Your task to perform on an android device: open device folders in google photos Image 0: 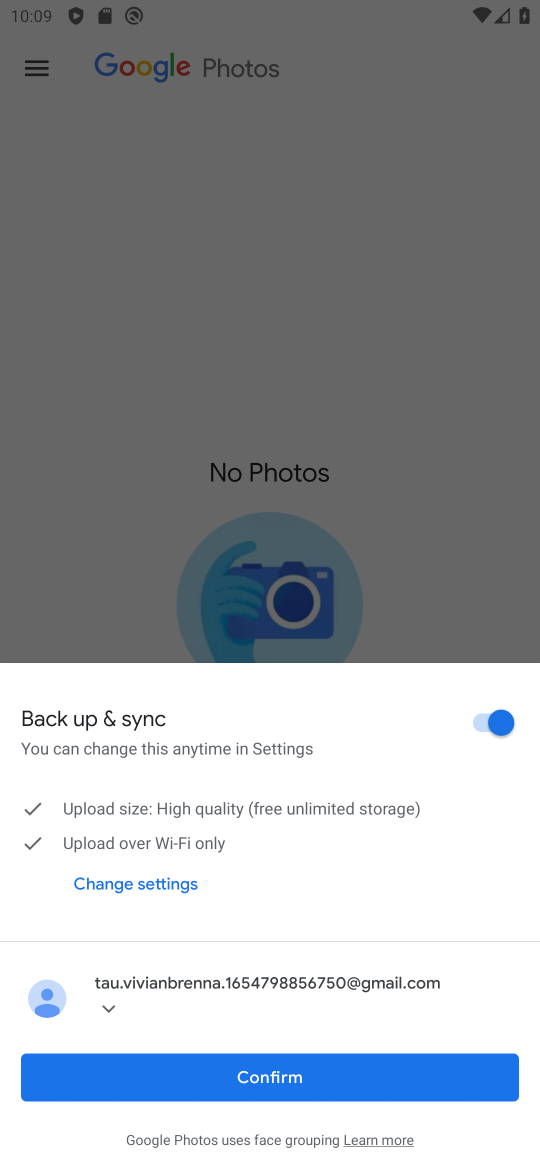
Step 0: press home button
Your task to perform on an android device: open device folders in google photos Image 1: 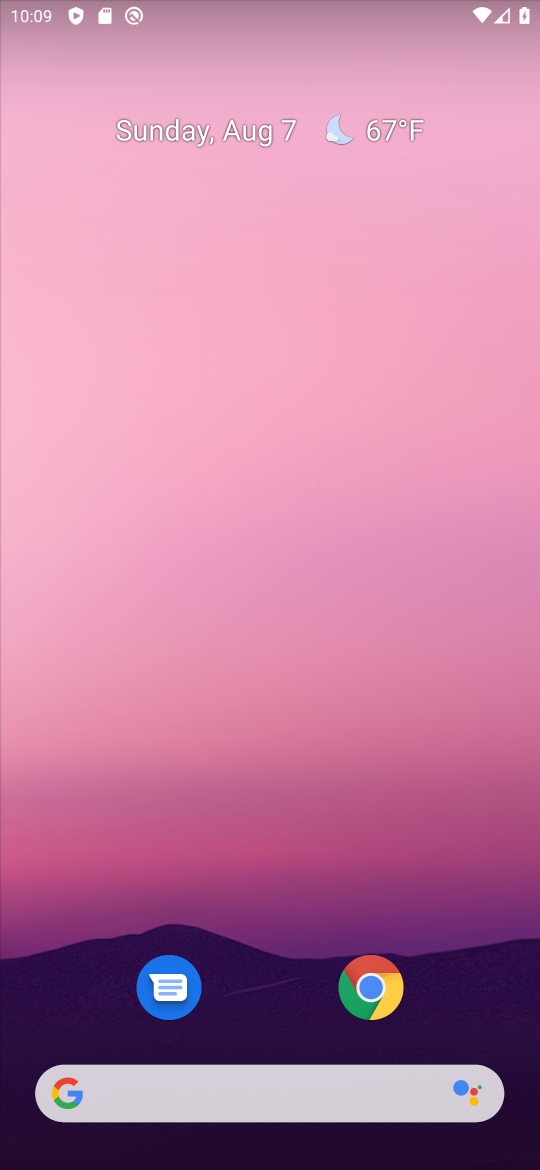
Step 1: drag from (181, 1022) to (310, 12)
Your task to perform on an android device: open device folders in google photos Image 2: 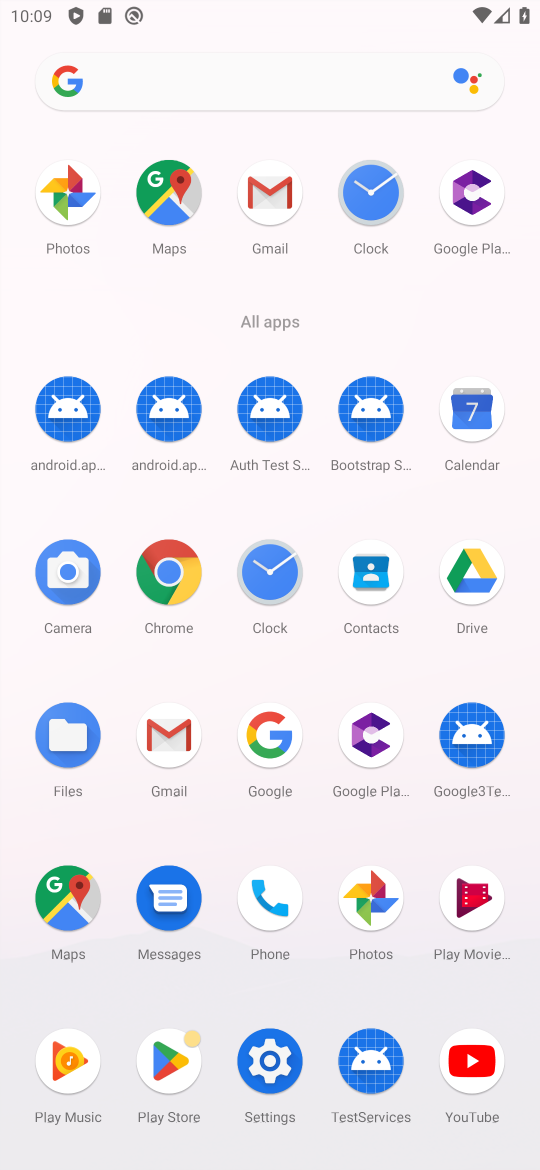
Step 2: click (360, 902)
Your task to perform on an android device: open device folders in google photos Image 3: 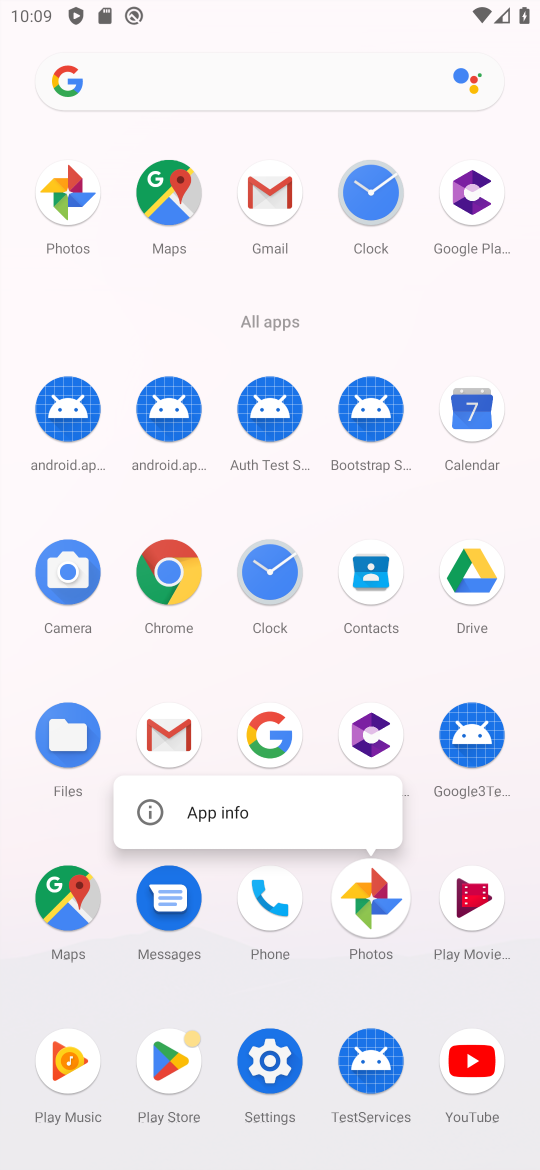
Step 3: click (360, 902)
Your task to perform on an android device: open device folders in google photos Image 4: 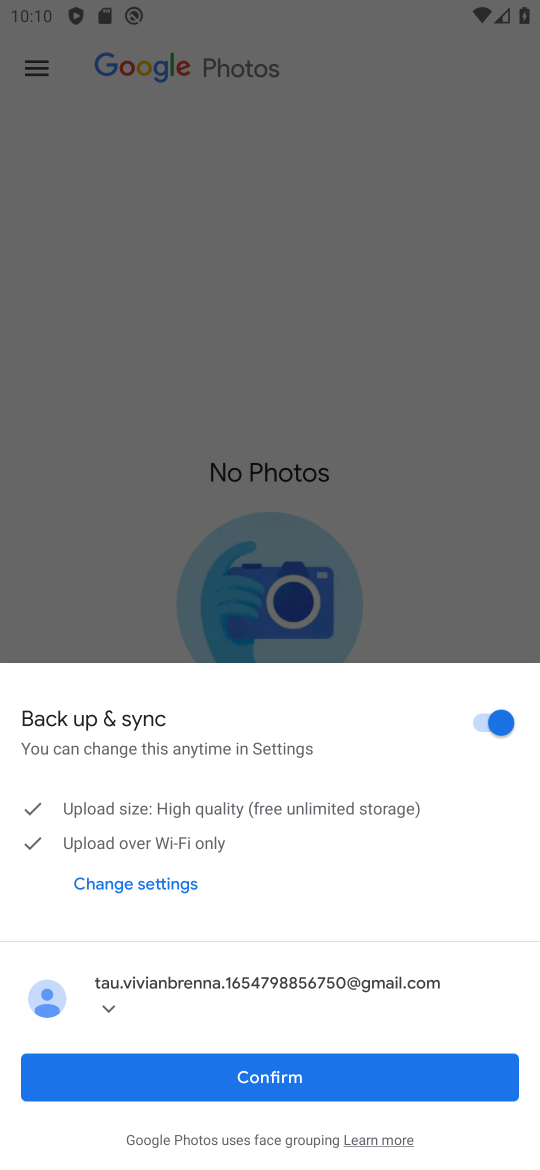
Step 4: click (44, 74)
Your task to perform on an android device: open device folders in google photos Image 5: 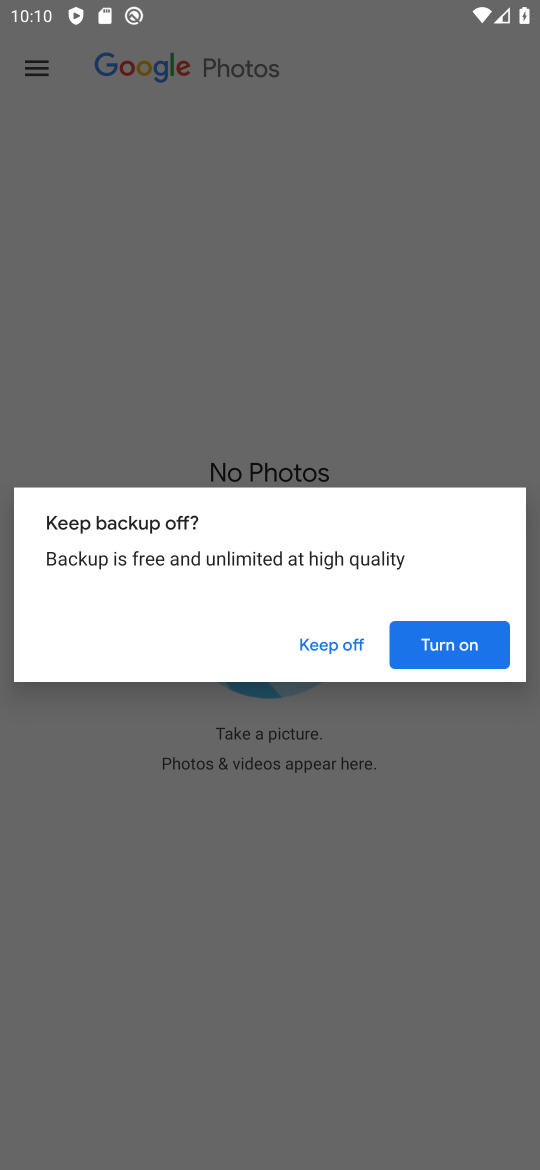
Step 5: click (439, 646)
Your task to perform on an android device: open device folders in google photos Image 6: 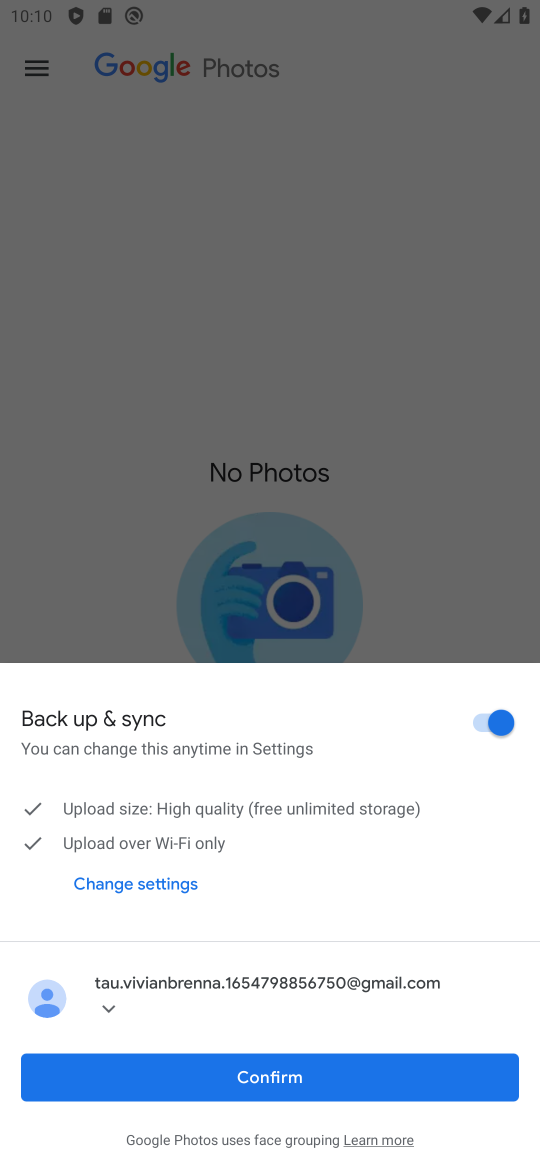
Step 6: click (45, 75)
Your task to perform on an android device: open device folders in google photos Image 7: 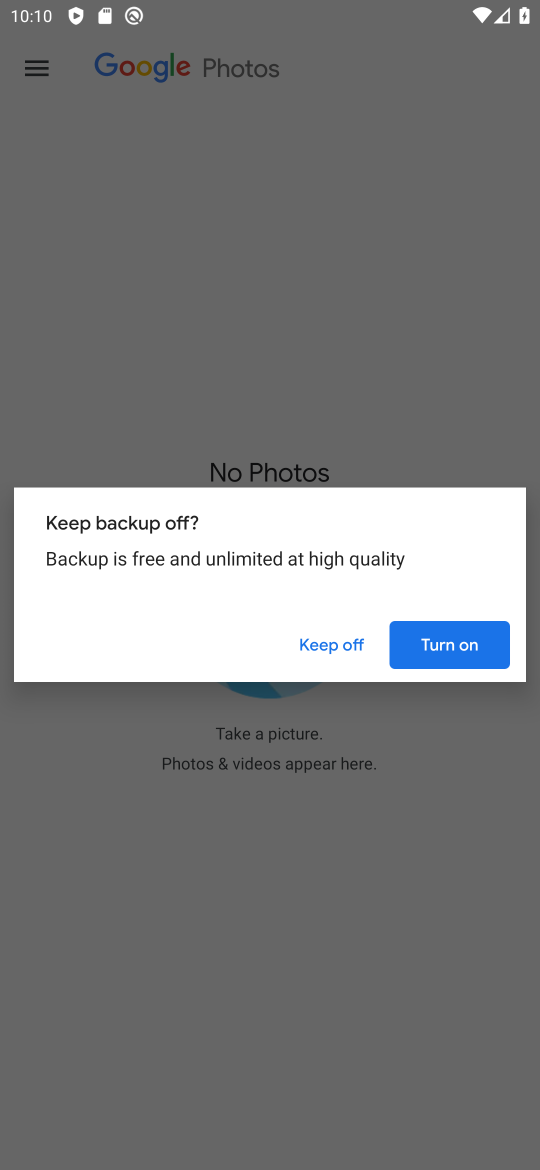
Step 7: click (471, 662)
Your task to perform on an android device: open device folders in google photos Image 8: 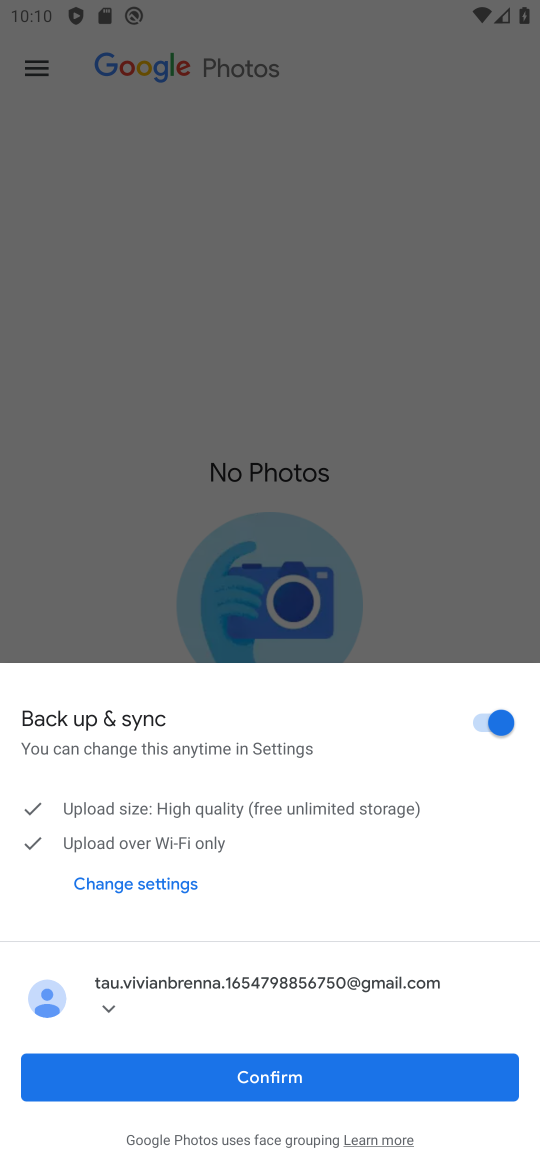
Step 8: click (258, 1076)
Your task to perform on an android device: open device folders in google photos Image 9: 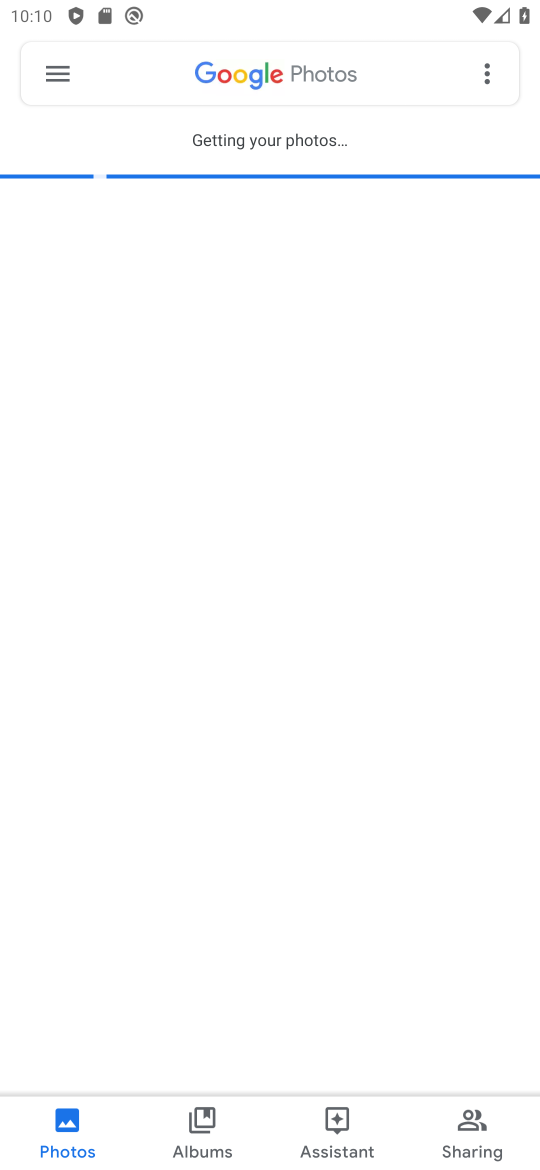
Step 9: click (44, 84)
Your task to perform on an android device: open device folders in google photos Image 10: 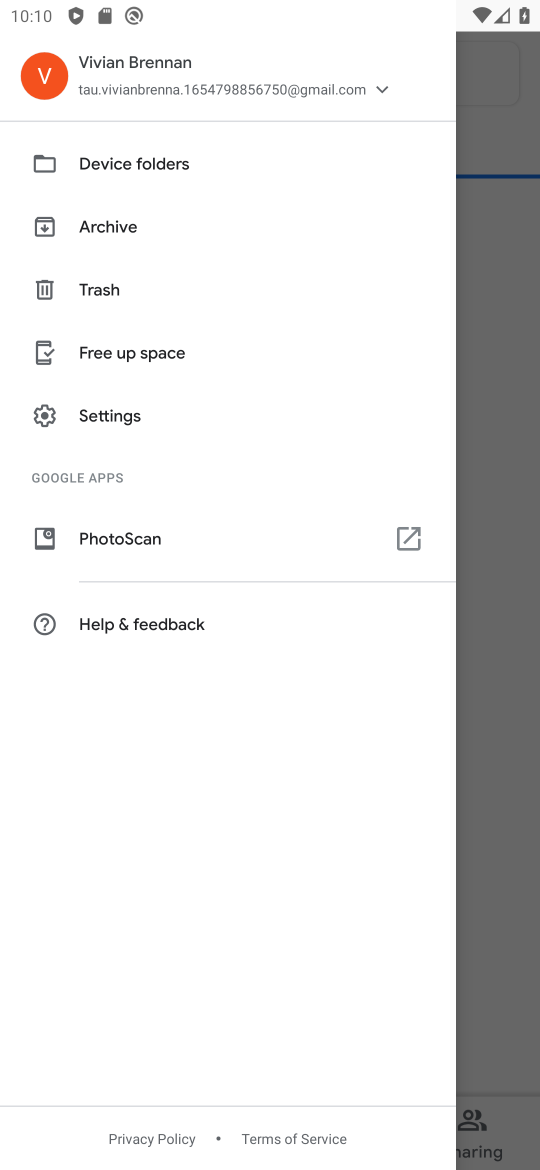
Step 10: click (124, 157)
Your task to perform on an android device: open device folders in google photos Image 11: 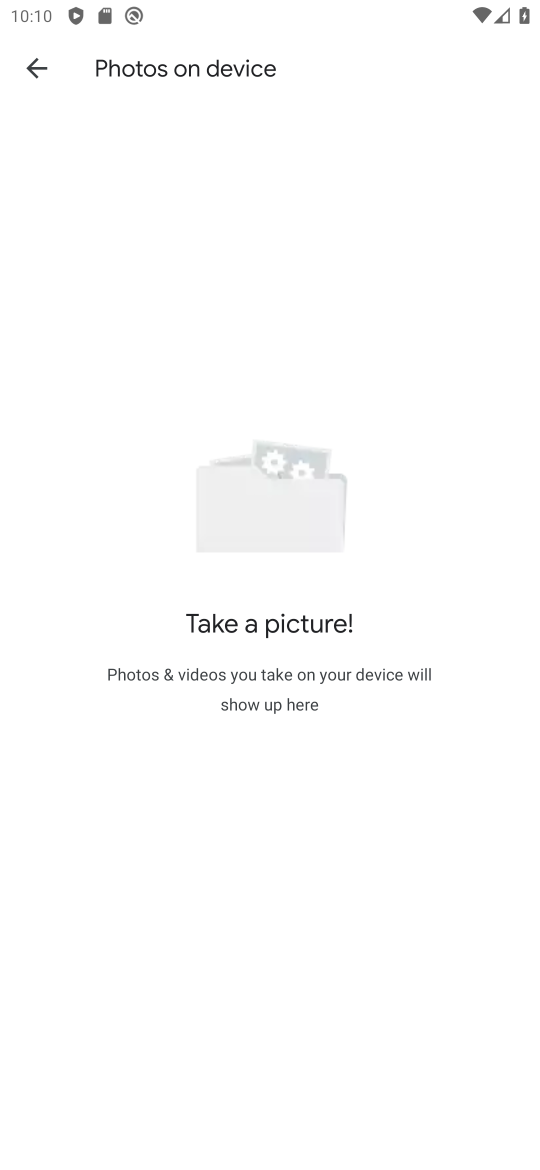
Step 11: task complete